Your task to perform on an android device: What's the weather today? Image 0: 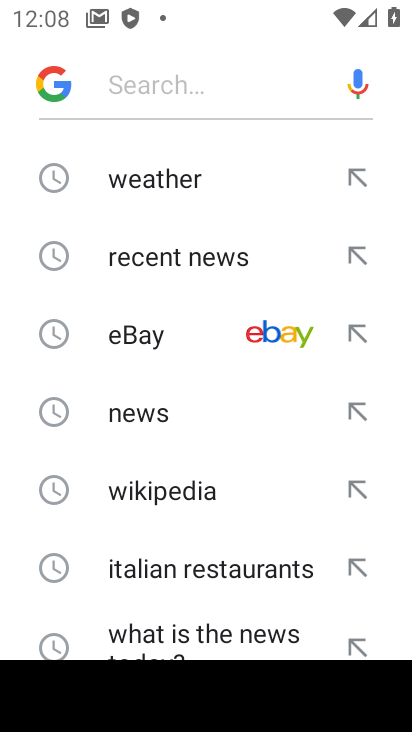
Step 0: click (219, 173)
Your task to perform on an android device: What's the weather today? Image 1: 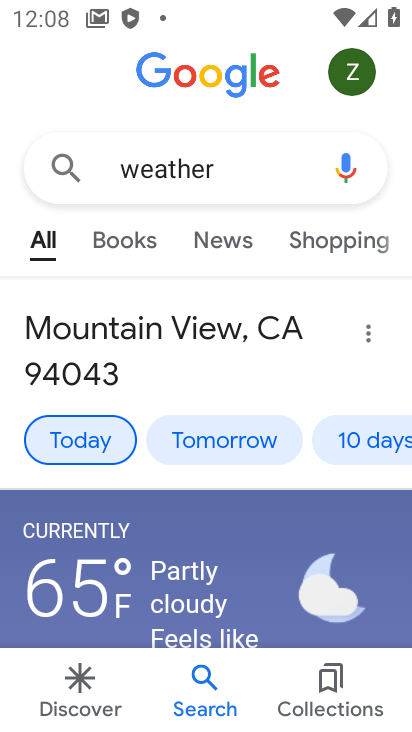
Step 1: task complete